Your task to perform on an android device: turn off wifi Image 0: 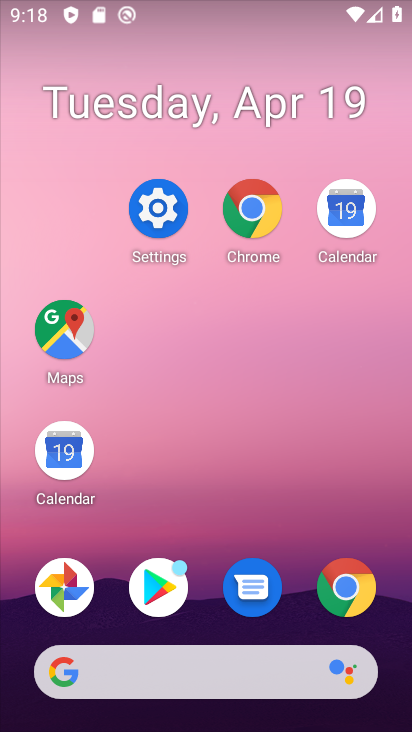
Step 0: drag from (153, 255) to (122, 133)
Your task to perform on an android device: turn off wifi Image 1: 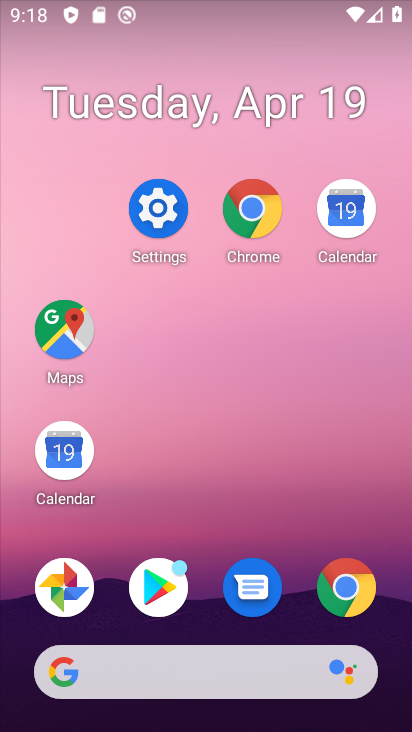
Step 1: drag from (352, 536) to (206, 153)
Your task to perform on an android device: turn off wifi Image 2: 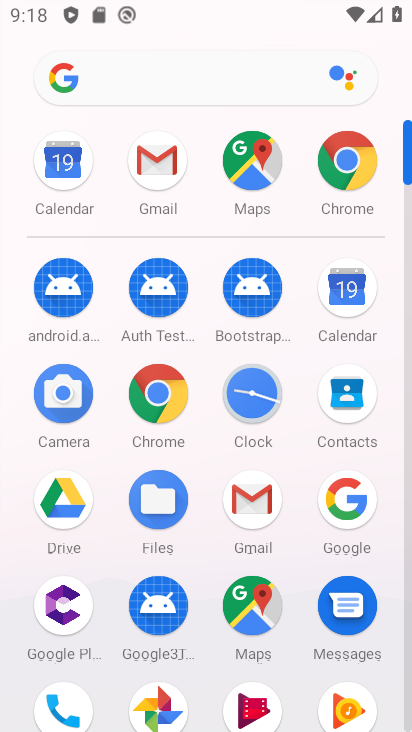
Step 2: drag from (228, 576) to (163, 72)
Your task to perform on an android device: turn off wifi Image 3: 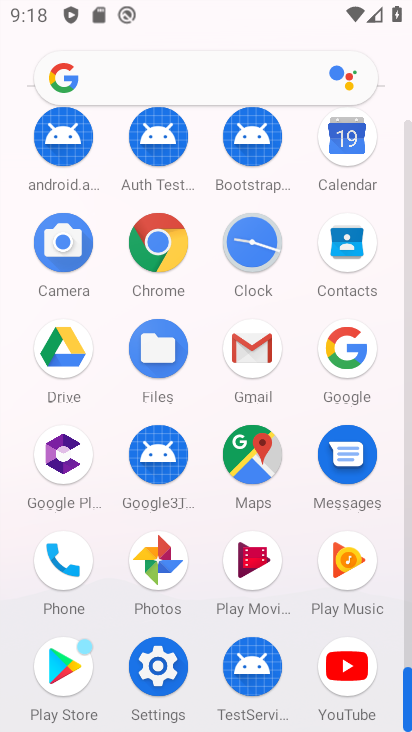
Step 3: click (155, 676)
Your task to perform on an android device: turn off wifi Image 4: 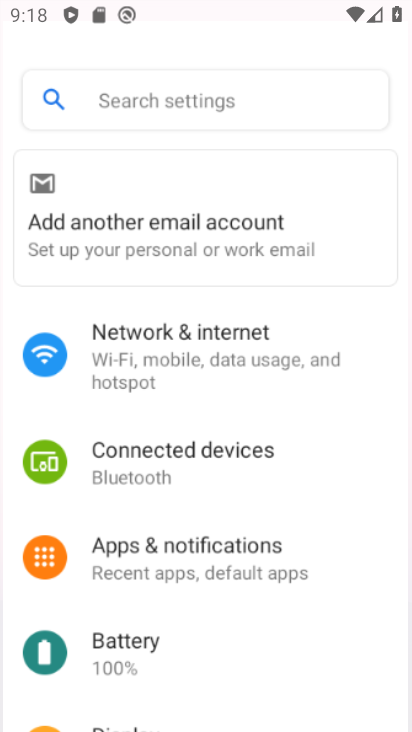
Step 4: click (155, 676)
Your task to perform on an android device: turn off wifi Image 5: 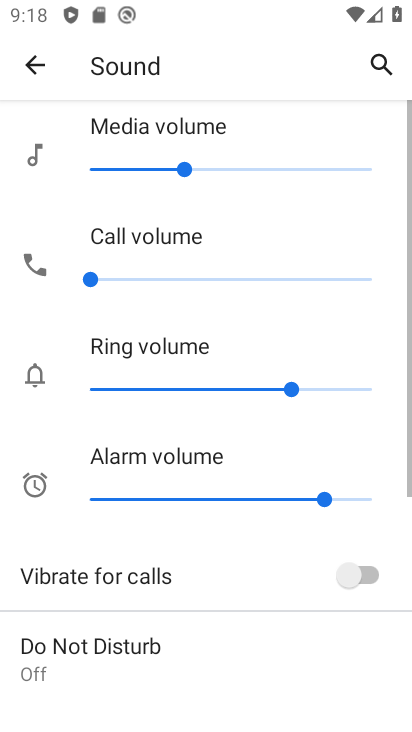
Step 5: click (162, 184)
Your task to perform on an android device: turn off wifi Image 6: 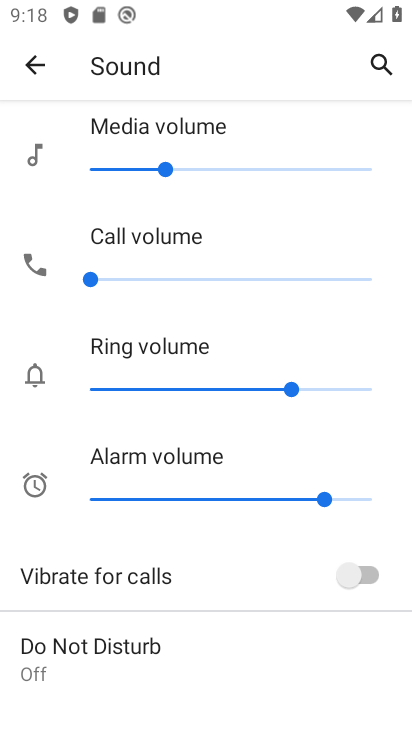
Step 6: click (29, 75)
Your task to perform on an android device: turn off wifi Image 7: 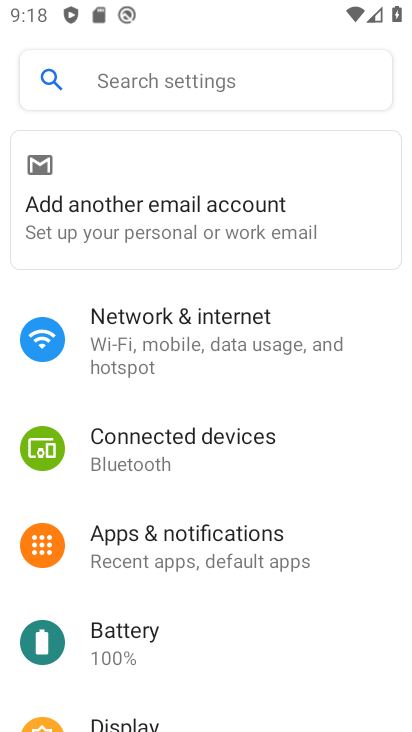
Step 7: click (189, 321)
Your task to perform on an android device: turn off wifi Image 8: 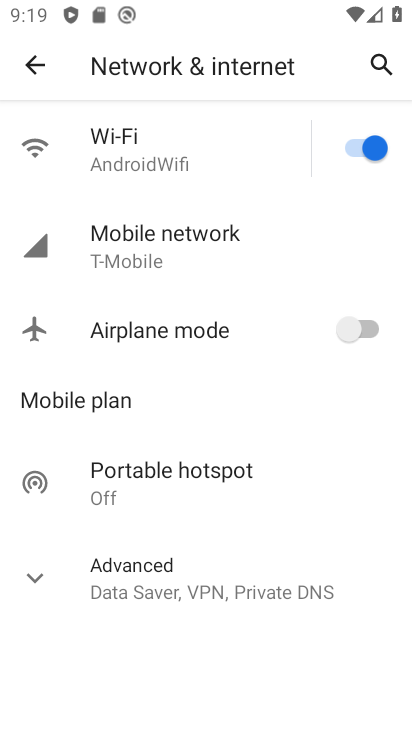
Step 8: click (364, 152)
Your task to perform on an android device: turn off wifi Image 9: 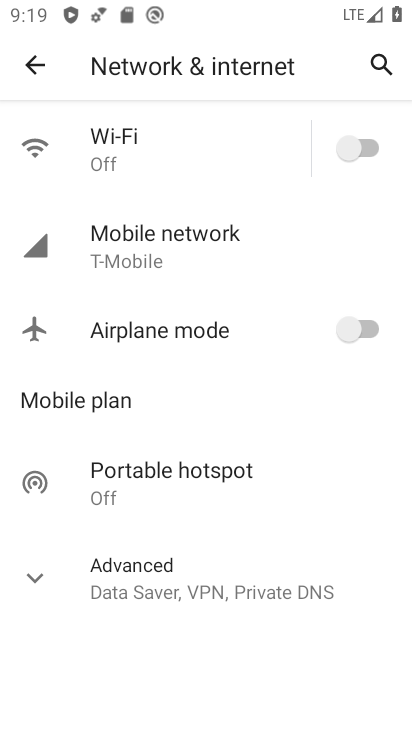
Step 9: task complete